Your task to perform on an android device: uninstall "LinkedIn" Image 0: 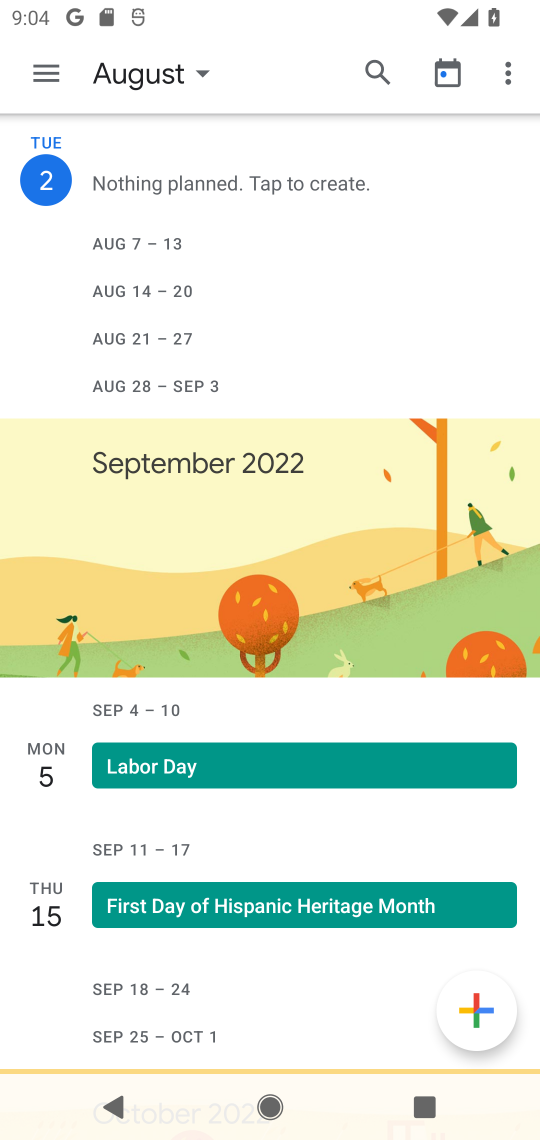
Step 0: press home button
Your task to perform on an android device: uninstall "LinkedIn" Image 1: 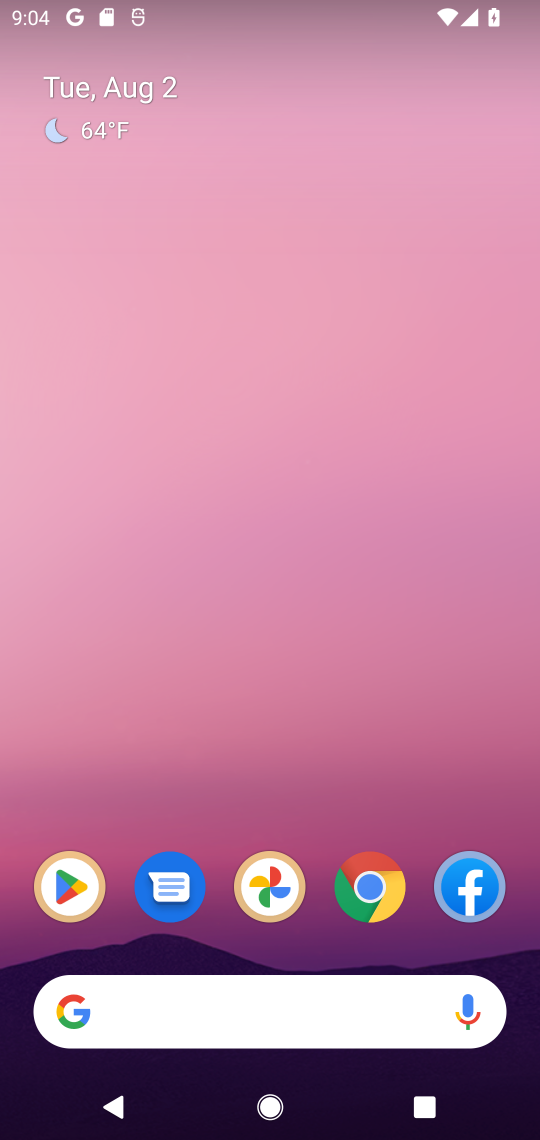
Step 1: click (66, 907)
Your task to perform on an android device: uninstall "LinkedIn" Image 2: 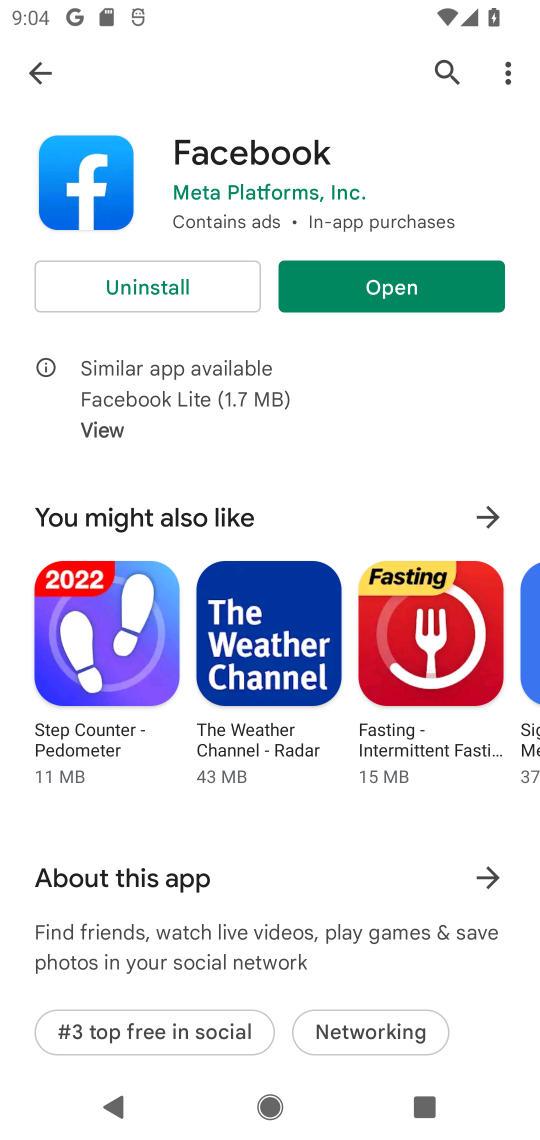
Step 2: click (457, 66)
Your task to perform on an android device: uninstall "LinkedIn" Image 3: 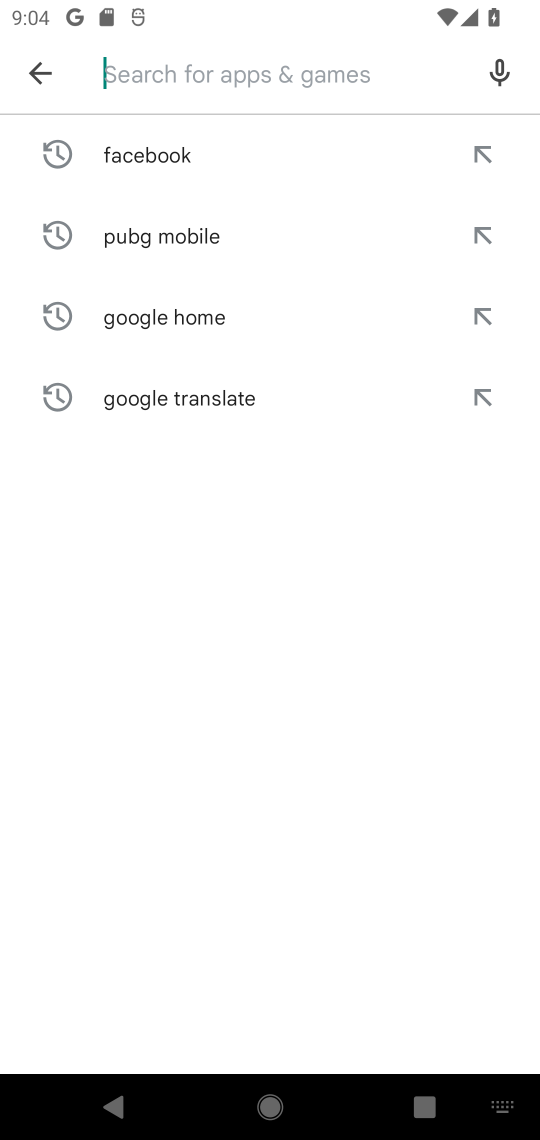
Step 3: type "LinkedIn"
Your task to perform on an android device: uninstall "LinkedIn" Image 4: 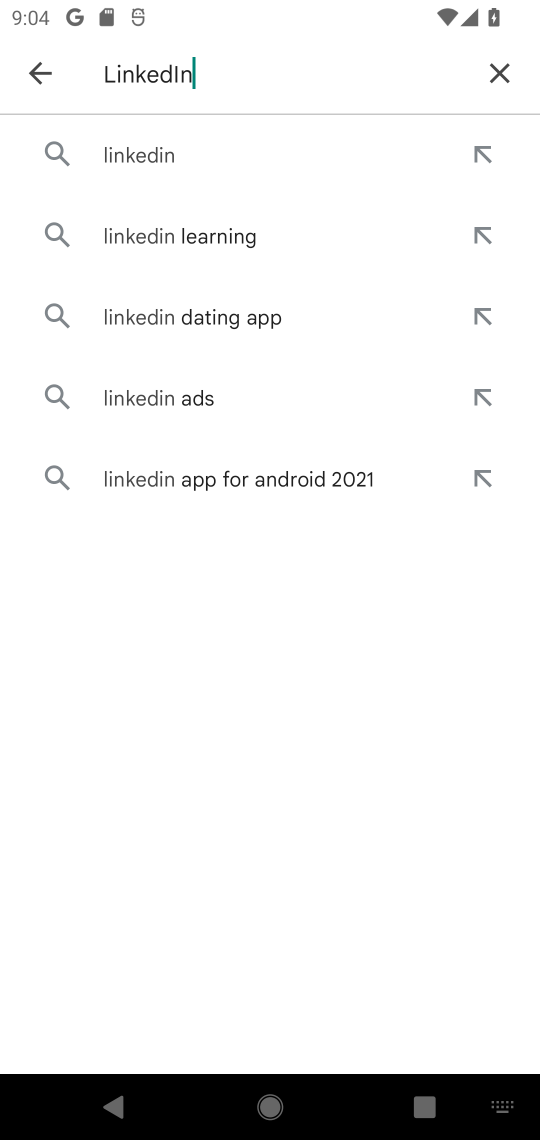
Step 4: click (122, 148)
Your task to perform on an android device: uninstall "LinkedIn" Image 5: 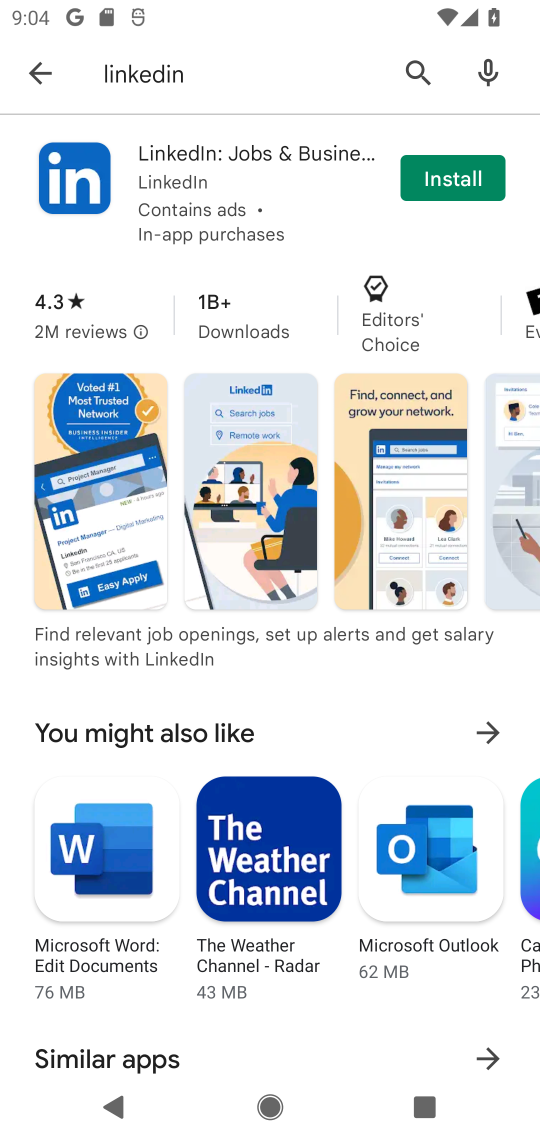
Step 5: click (190, 153)
Your task to perform on an android device: uninstall "LinkedIn" Image 6: 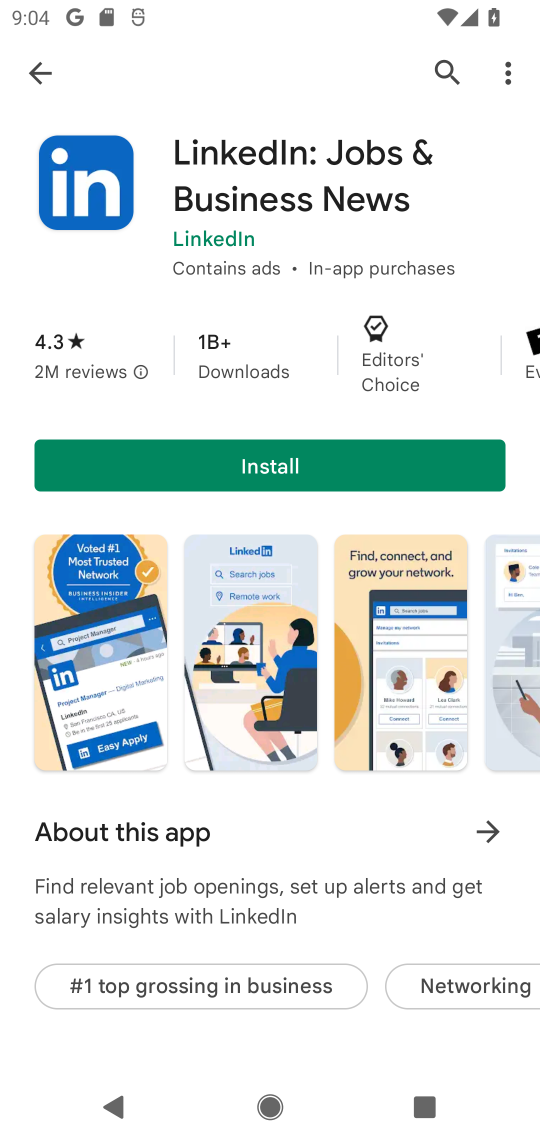
Step 6: task complete